Your task to perform on an android device: Clear the cart on walmart.com. Search for "bose quietcomfort 35" on walmart.com, select the first entry, and add it to the cart. Image 0: 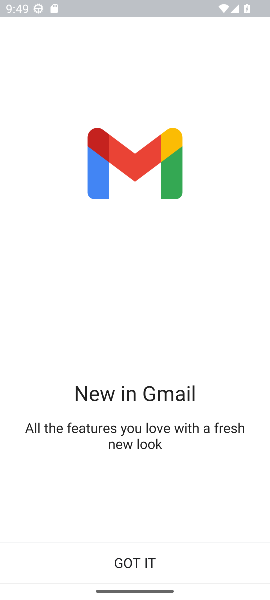
Step 0: press home button
Your task to perform on an android device: Clear the cart on walmart.com. Search for "bose quietcomfort 35" on walmart.com, select the first entry, and add it to the cart. Image 1: 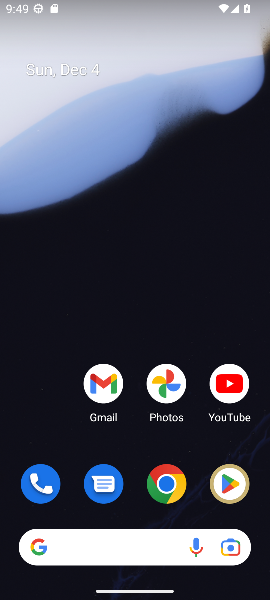
Step 1: click (175, 490)
Your task to perform on an android device: Clear the cart on walmart.com. Search for "bose quietcomfort 35" on walmart.com, select the first entry, and add it to the cart. Image 2: 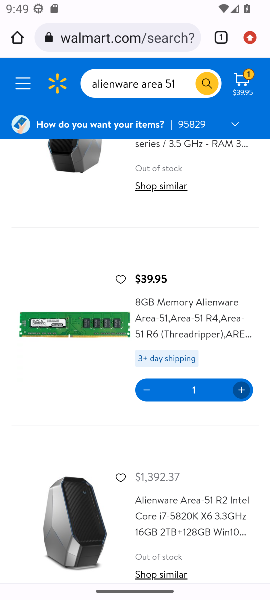
Step 2: click (239, 85)
Your task to perform on an android device: Clear the cart on walmart.com. Search for "bose quietcomfort 35" on walmart.com, select the first entry, and add it to the cart. Image 3: 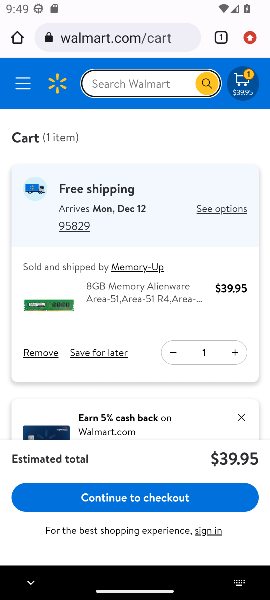
Step 3: click (42, 353)
Your task to perform on an android device: Clear the cart on walmart.com. Search for "bose quietcomfort 35" on walmart.com, select the first entry, and add it to the cart. Image 4: 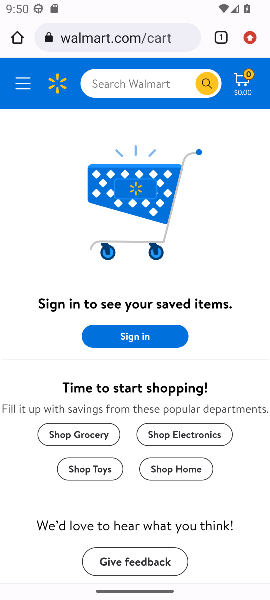
Step 4: click (123, 89)
Your task to perform on an android device: Clear the cart on walmart.com. Search for "bose quietcomfort 35" on walmart.com, select the first entry, and add it to the cart. Image 5: 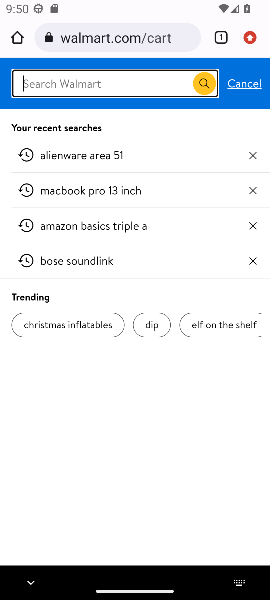
Step 5: type "bose quietcomfort 35"
Your task to perform on an android device: Clear the cart on walmart.com. Search for "bose quietcomfort 35" on walmart.com, select the first entry, and add it to the cart. Image 6: 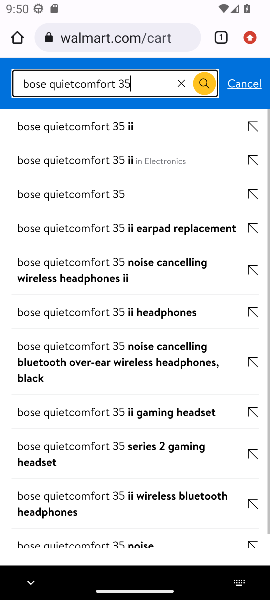
Step 6: click (84, 197)
Your task to perform on an android device: Clear the cart on walmart.com. Search for "bose quietcomfort 35" on walmart.com, select the first entry, and add it to the cart. Image 7: 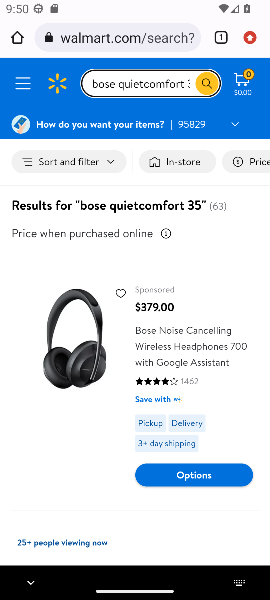
Step 7: task complete